Your task to perform on an android device: Go to Google maps Image 0: 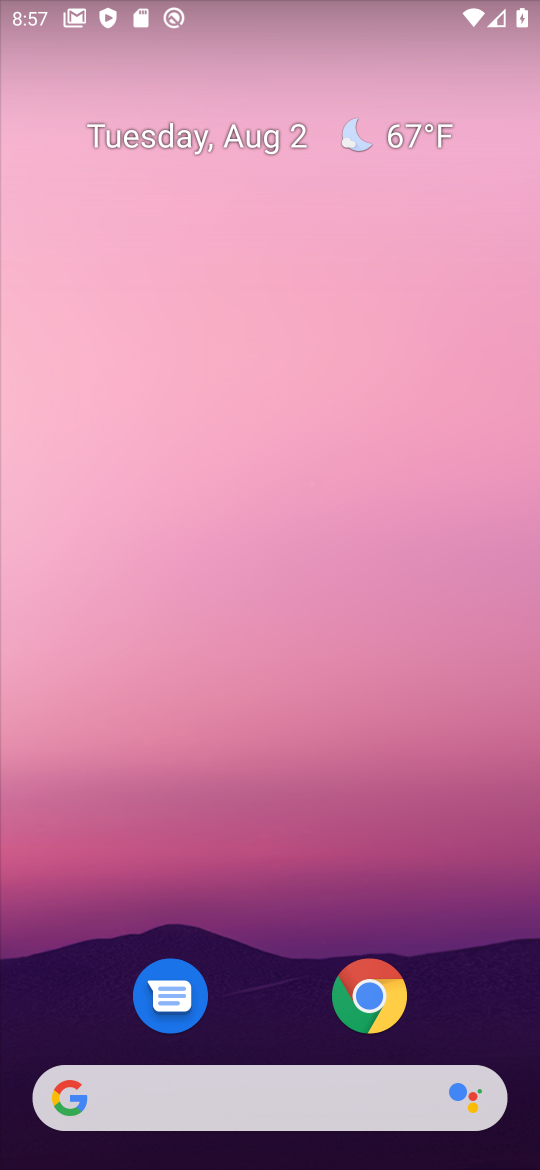
Step 0: drag from (258, 972) to (336, 93)
Your task to perform on an android device: Go to Google maps Image 1: 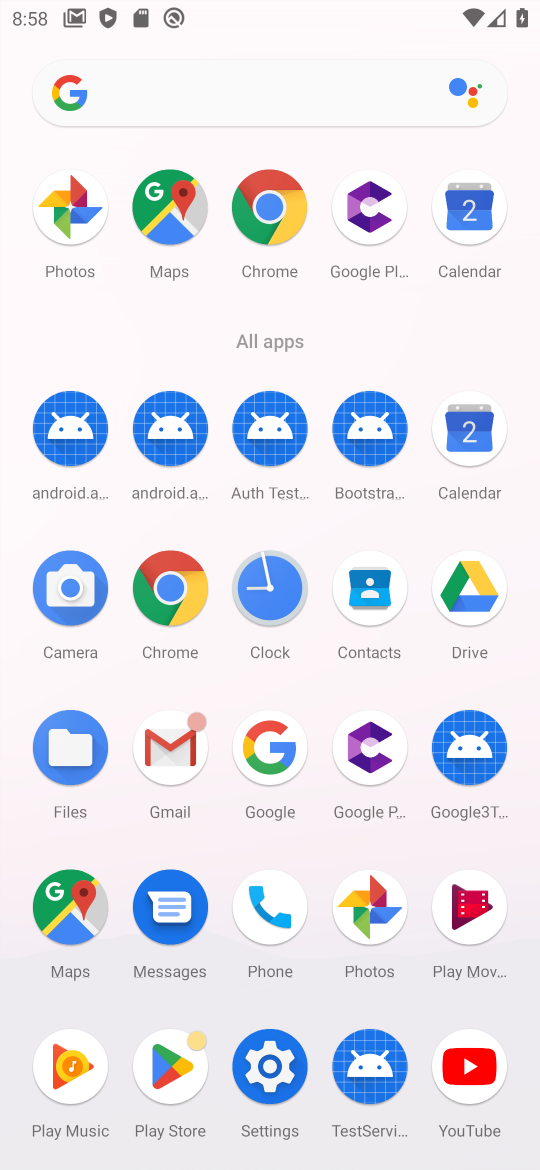
Step 1: click (63, 891)
Your task to perform on an android device: Go to Google maps Image 2: 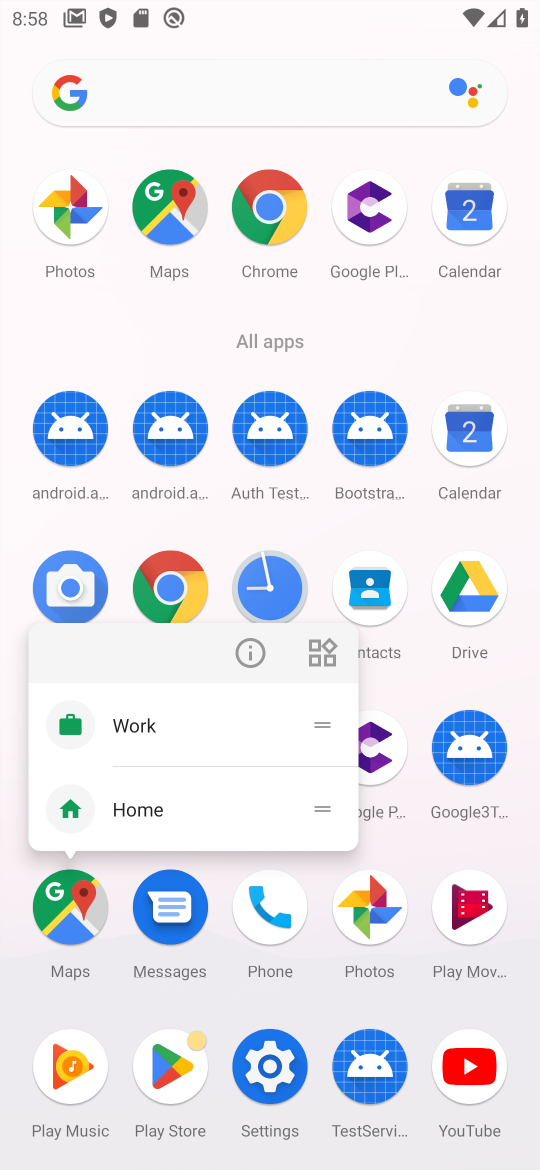
Step 2: click (69, 899)
Your task to perform on an android device: Go to Google maps Image 3: 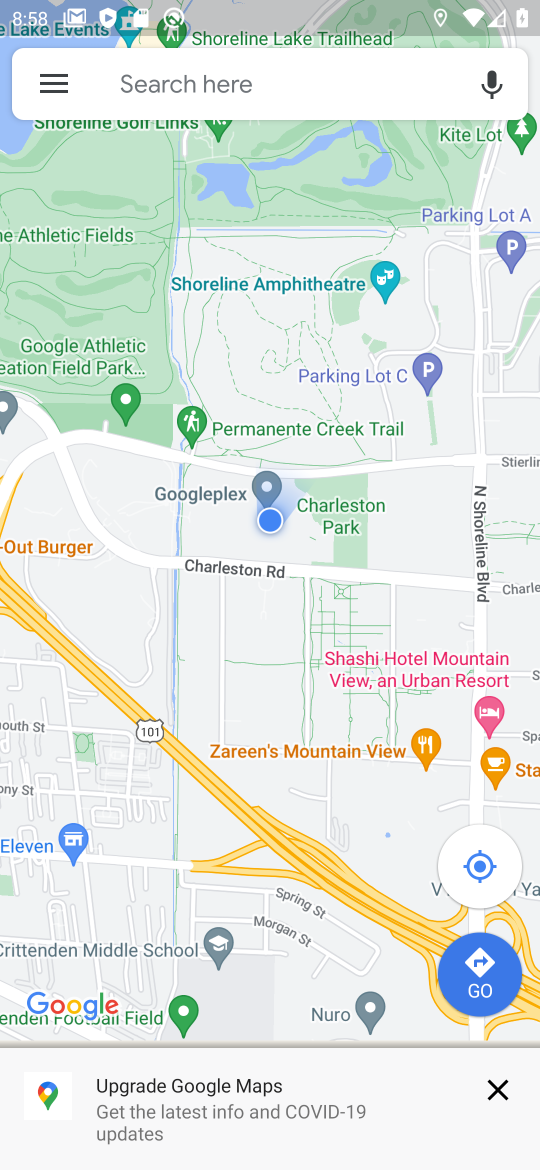
Step 3: task complete